Your task to perform on an android device: change the clock display to show seconds Image 0: 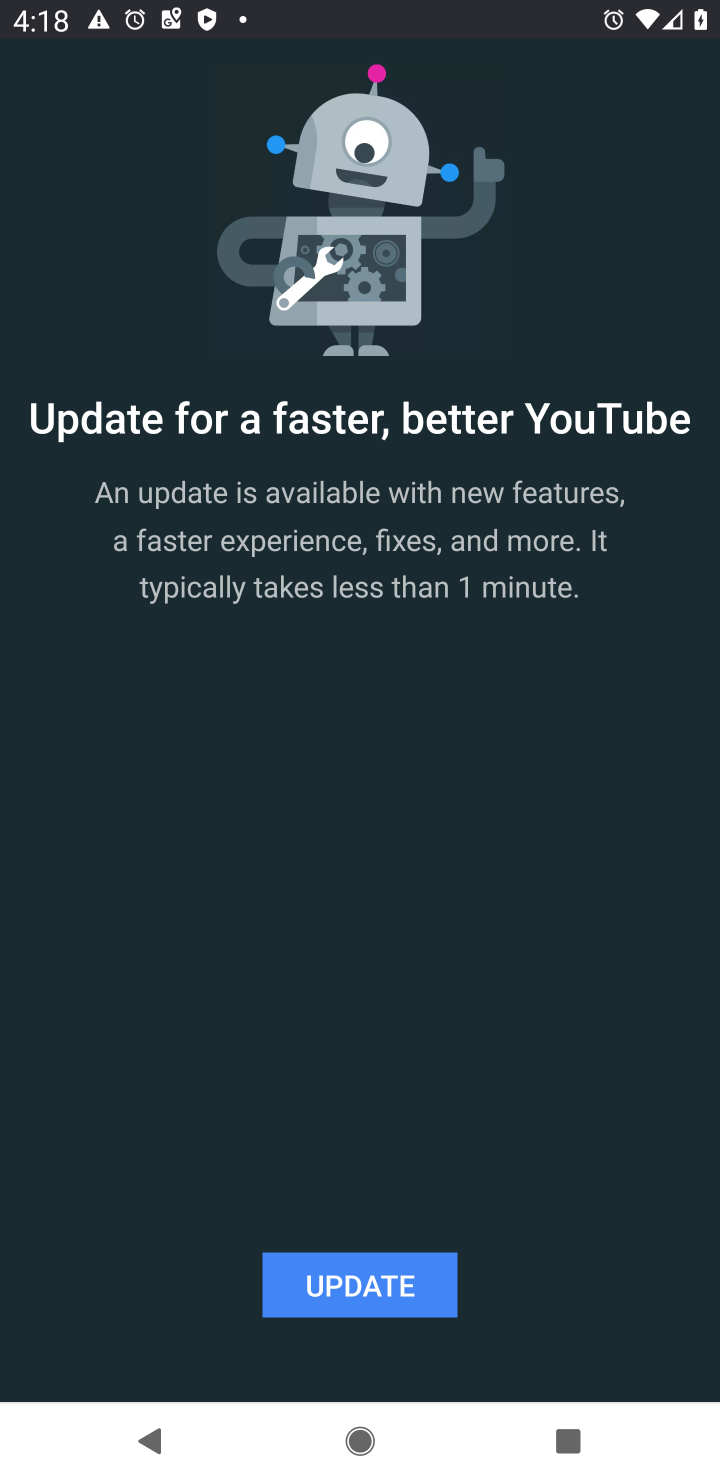
Step 0: press home button
Your task to perform on an android device: change the clock display to show seconds Image 1: 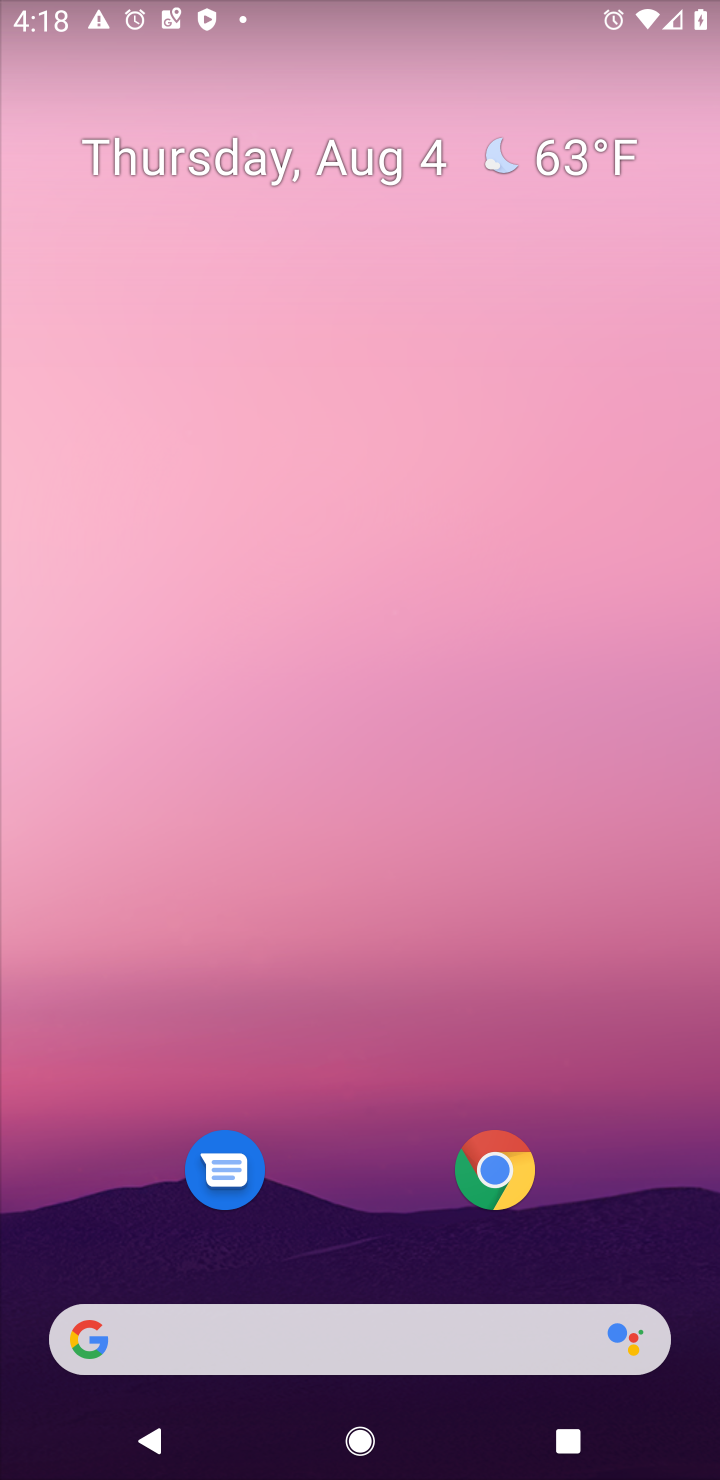
Step 1: drag from (677, 1212) to (572, 445)
Your task to perform on an android device: change the clock display to show seconds Image 2: 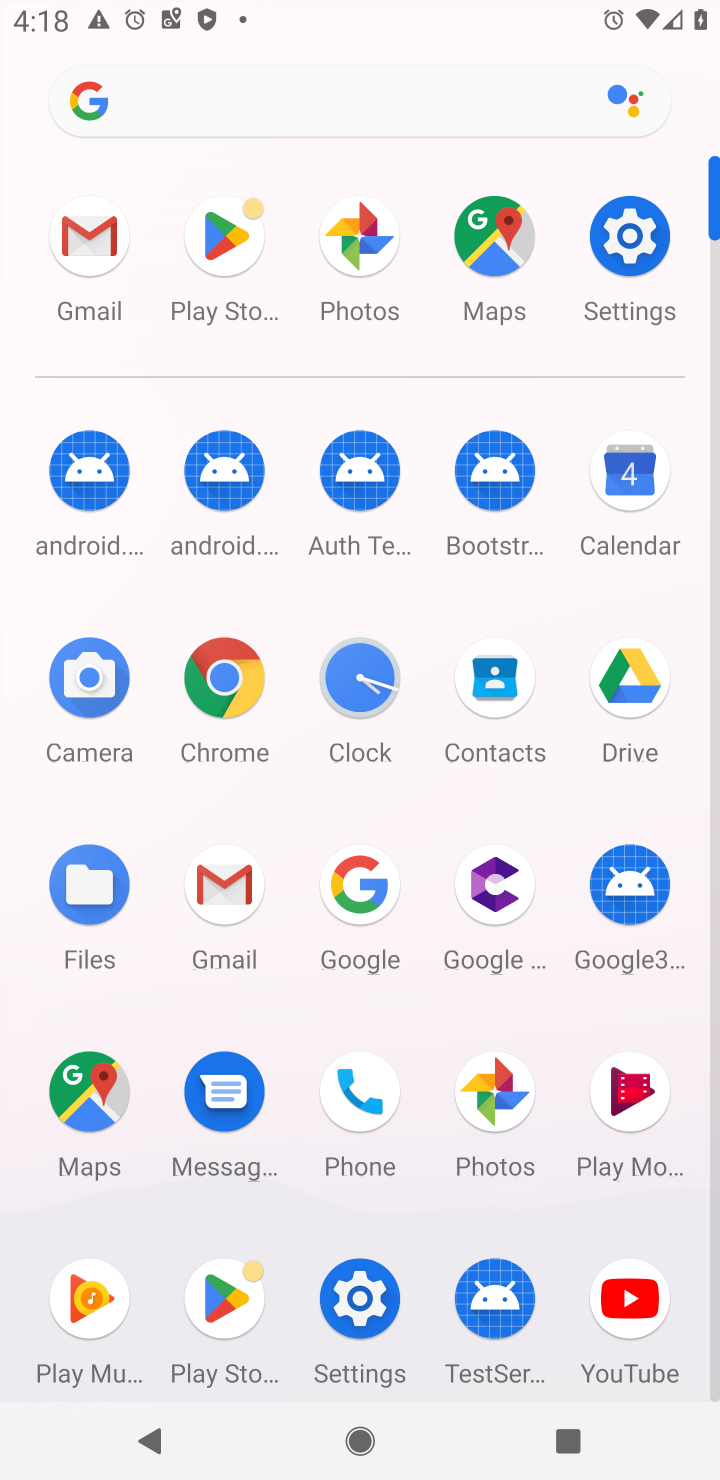
Step 2: click (357, 682)
Your task to perform on an android device: change the clock display to show seconds Image 3: 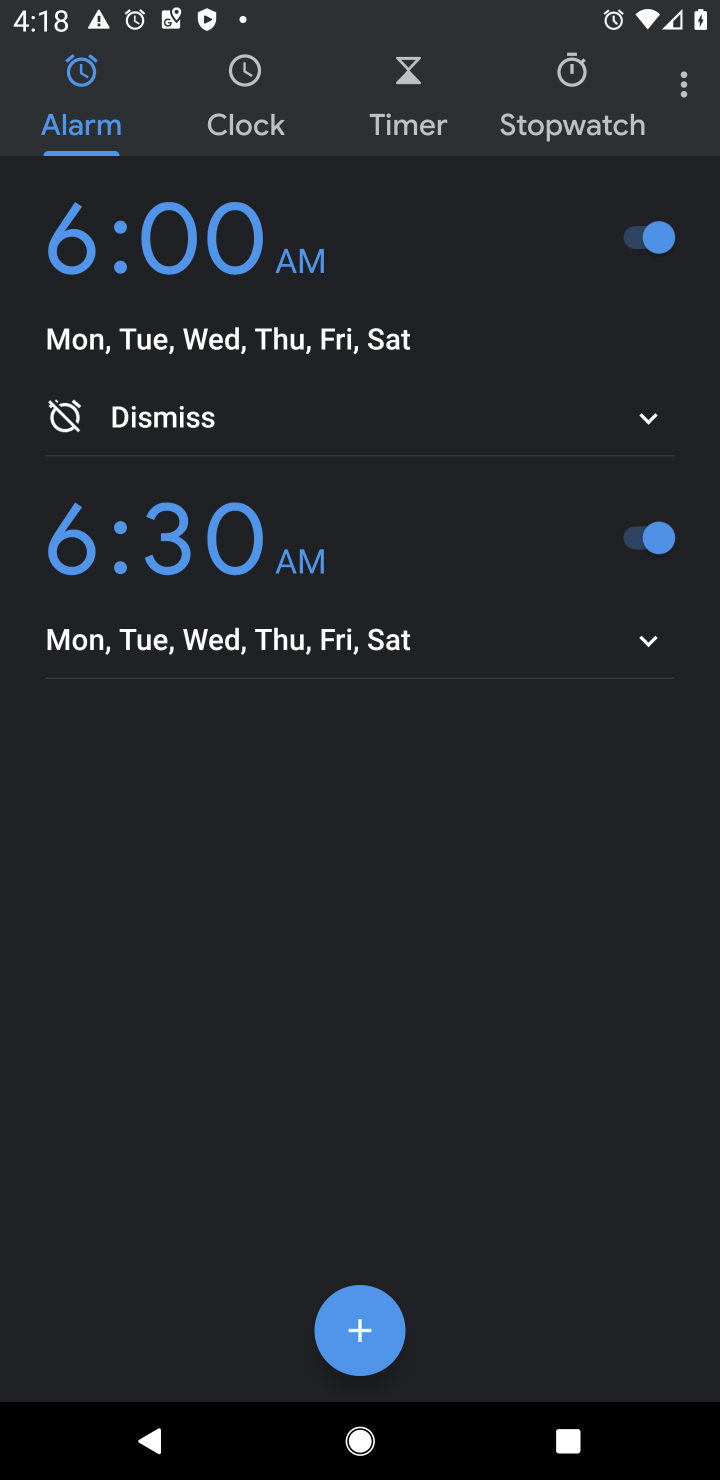
Step 3: click (681, 100)
Your task to perform on an android device: change the clock display to show seconds Image 4: 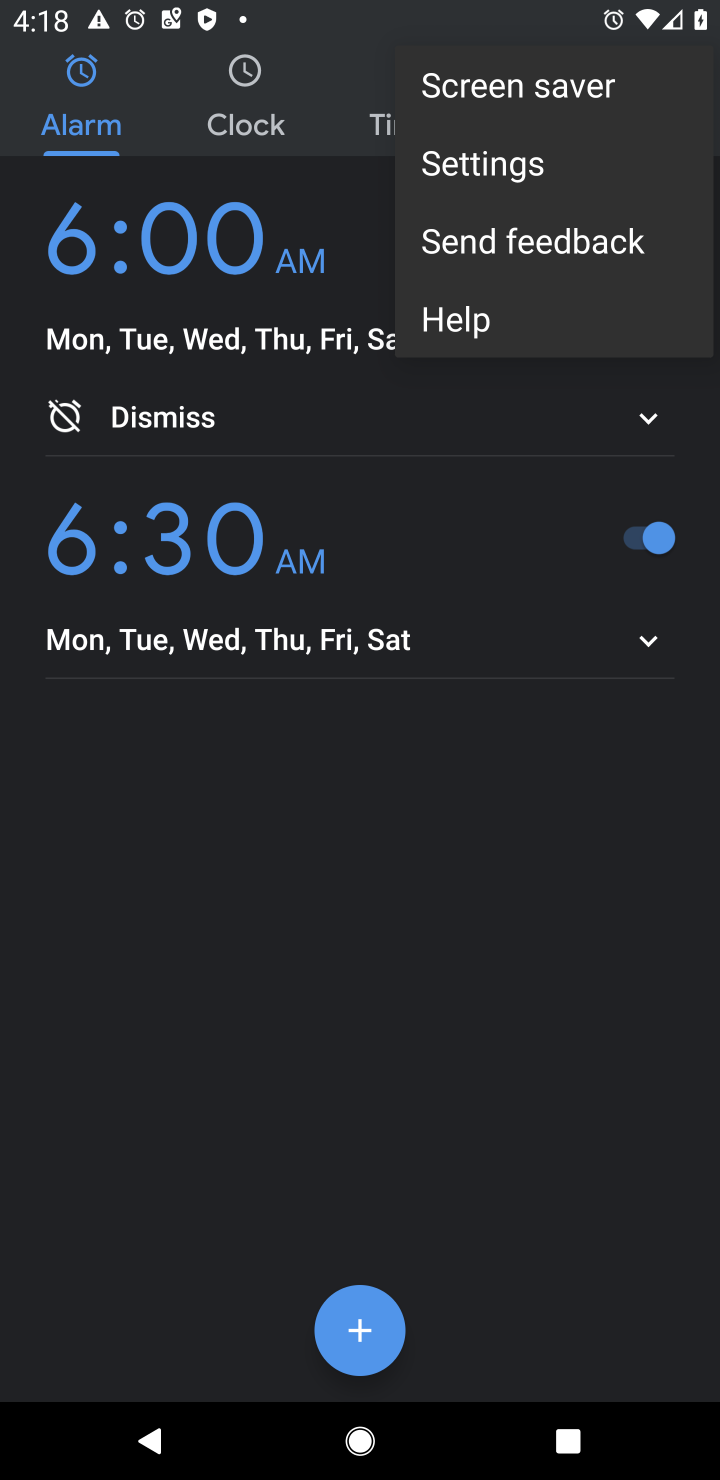
Step 4: click (507, 155)
Your task to perform on an android device: change the clock display to show seconds Image 5: 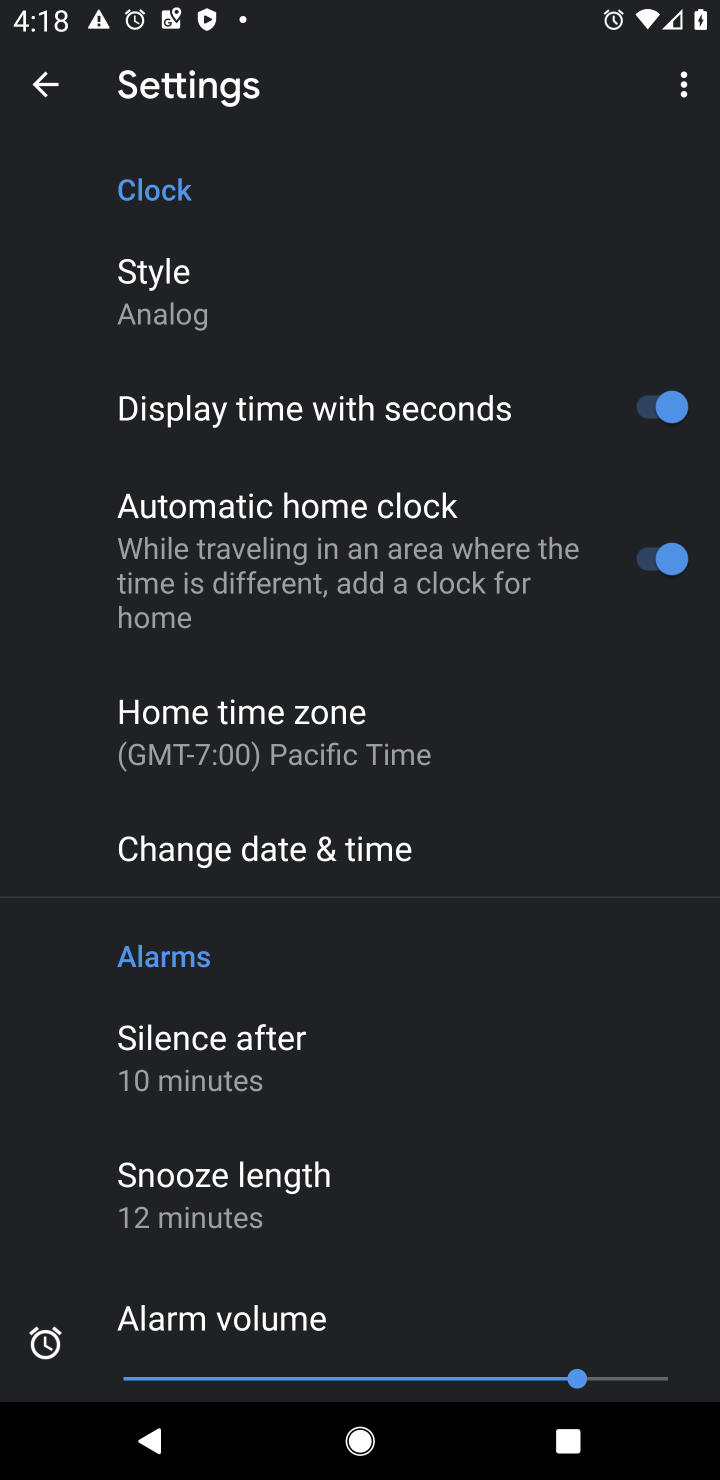
Step 5: task complete